Your task to perform on an android device: Go to calendar. Show me events next week Image 0: 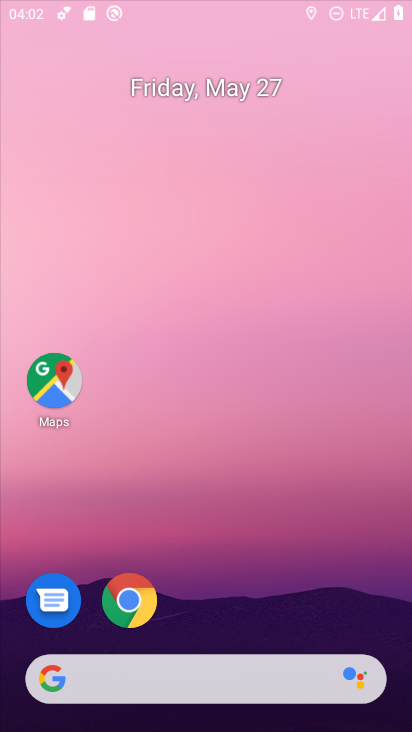
Step 0: drag from (230, 725) to (210, 163)
Your task to perform on an android device: Go to calendar. Show me events next week Image 1: 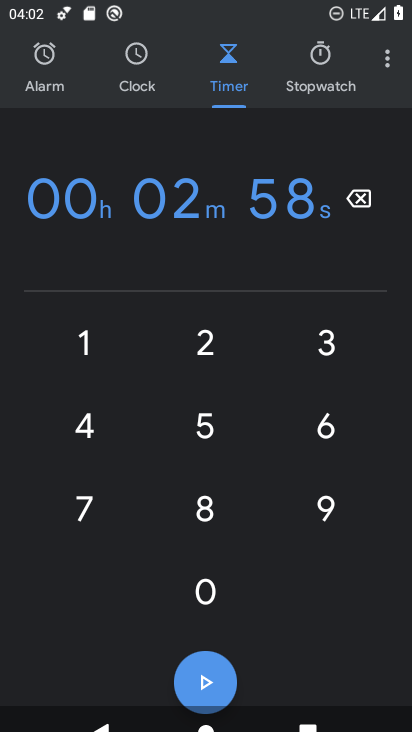
Step 1: press home button
Your task to perform on an android device: Go to calendar. Show me events next week Image 2: 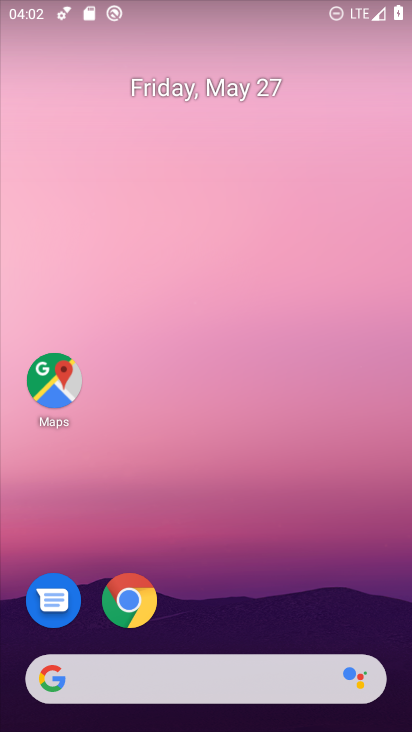
Step 2: drag from (238, 713) to (238, 118)
Your task to perform on an android device: Go to calendar. Show me events next week Image 3: 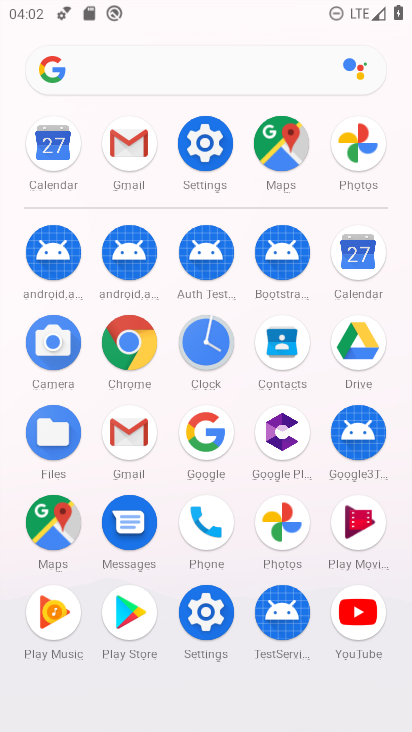
Step 3: click (355, 250)
Your task to perform on an android device: Go to calendar. Show me events next week Image 4: 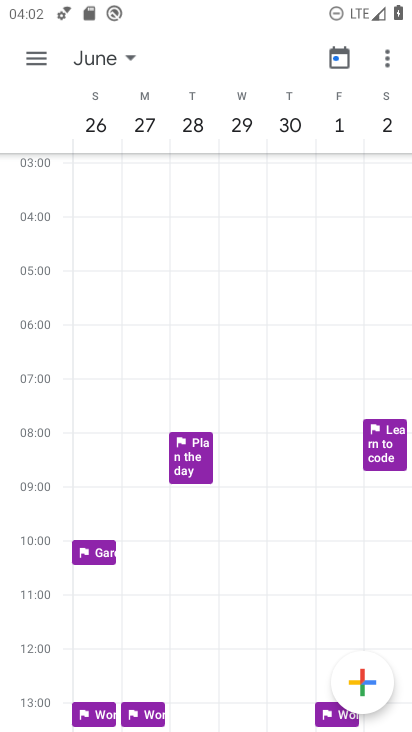
Step 4: click (114, 52)
Your task to perform on an android device: Go to calendar. Show me events next week Image 5: 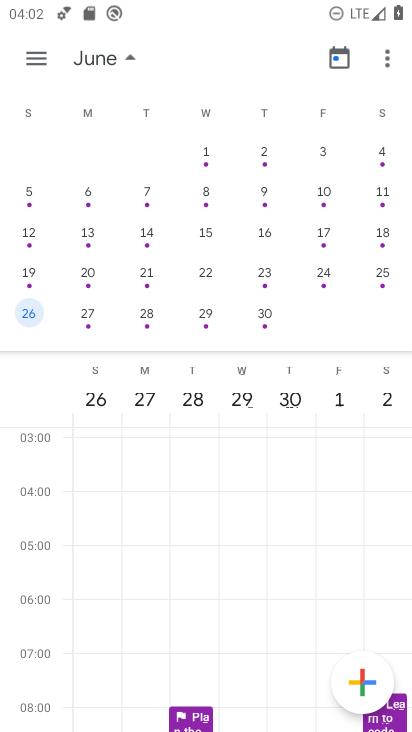
Step 5: drag from (54, 275) to (405, 319)
Your task to perform on an android device: Go to calendar. Show me events next week Image 6: 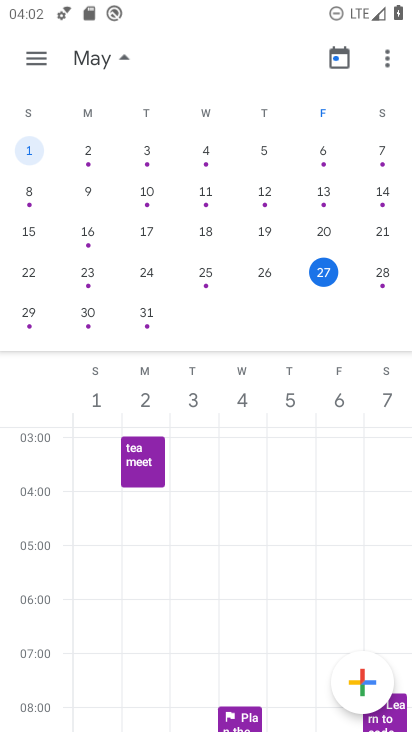
Step 6: click (90, 312)
Your task to perform on an android device: Go to calendar. Show me events next week Image 7: 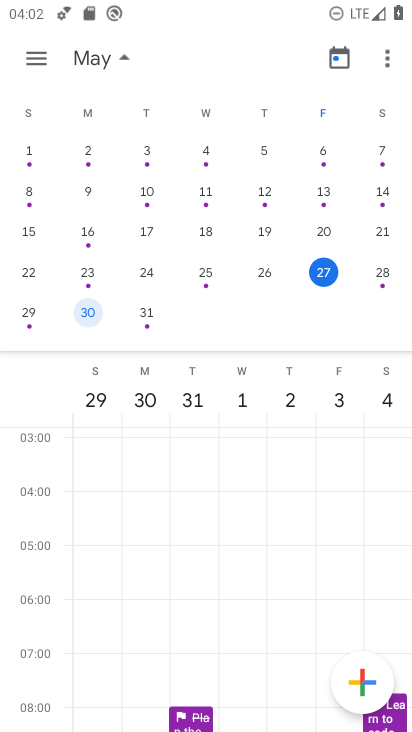
Step 7: click (26, 59)
Your task to perform on an android device: Go to calendar. Show me events next week Image 8: 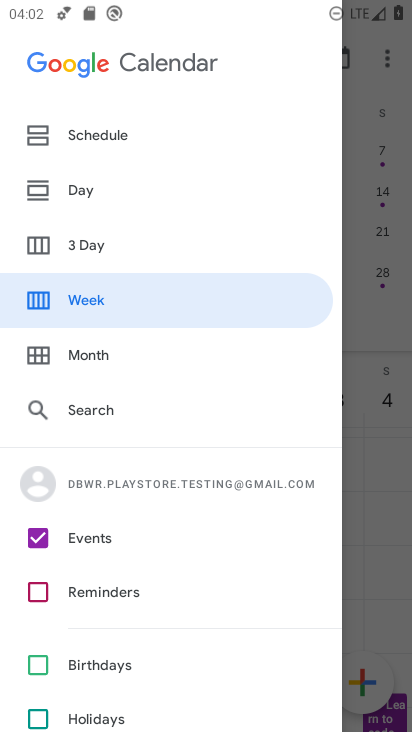
Step 8: click (87, 302)
Your task to perform on an android device: Go to calendar. Show me events next week Image 9: 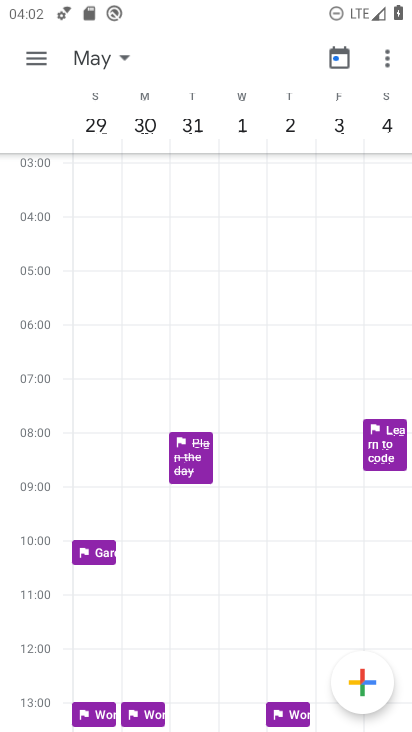
Step 9: task complete